Your task to perform on an android device: Go to Yahoo.com Image 0: 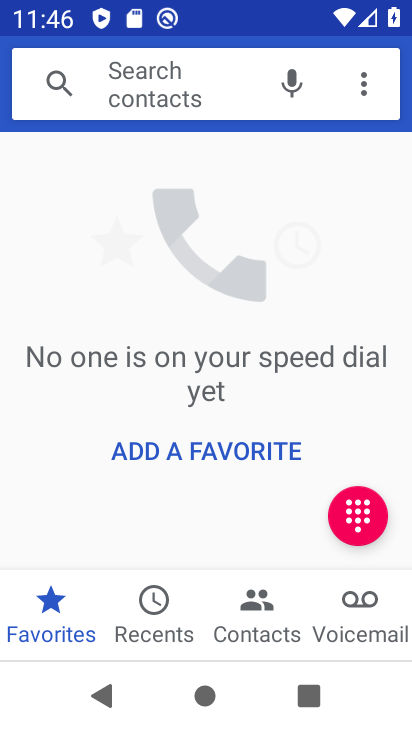
Step 0: press home button
Your task to perform on an android device: Go to Yahoo.com Image 1: 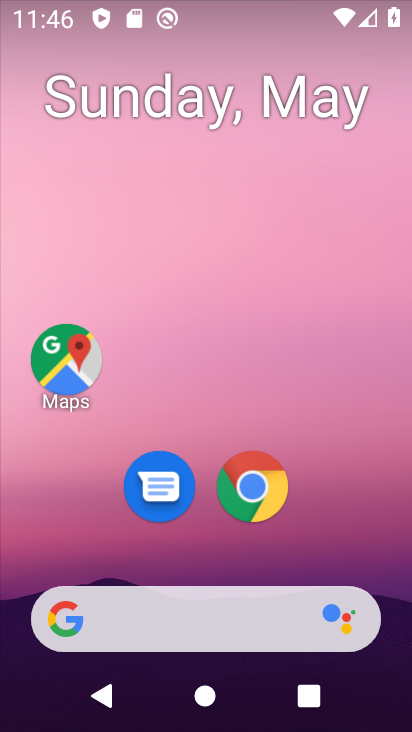
Step 1: click (254, 486)
Your task to perform on an android device: Go to Yahoo.com Image 2: 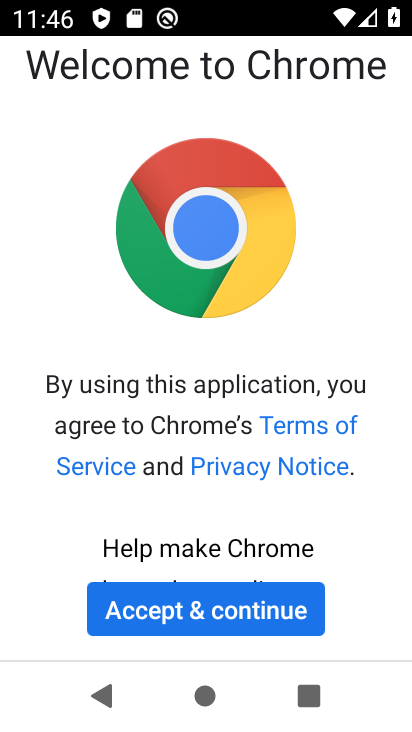
Step 2: click (207, 603)
Your task to perform on an android device: Go to Yahoo.com Image 3: 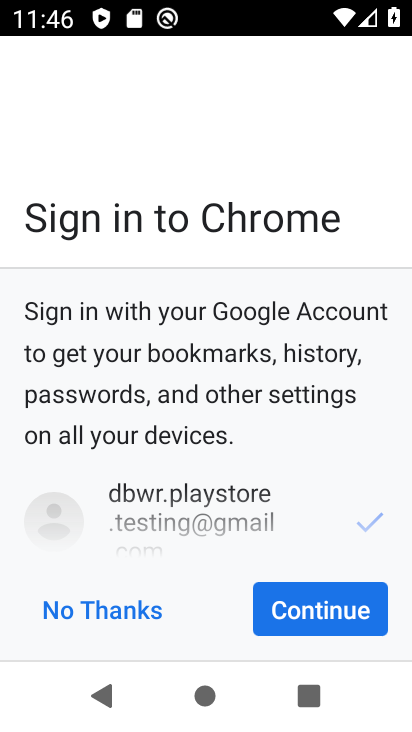
Step 3: click (331, 621)
Your task to perform on an android device: Go to Yahoo.com Image 4: 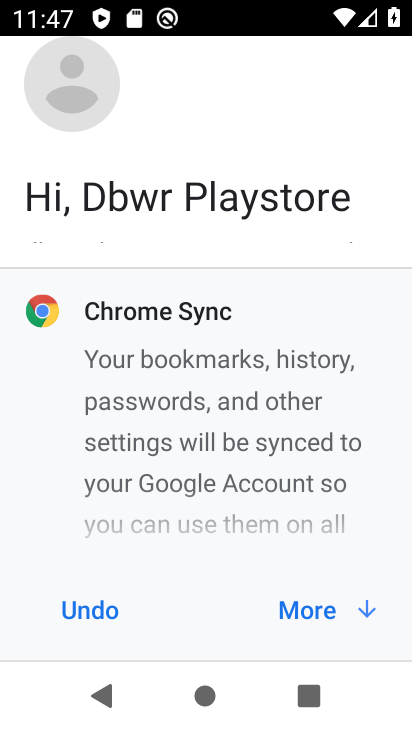
Step 4: click (318, 609)
Your task to perform on an android device: Go to Yahoo.com Image 5: 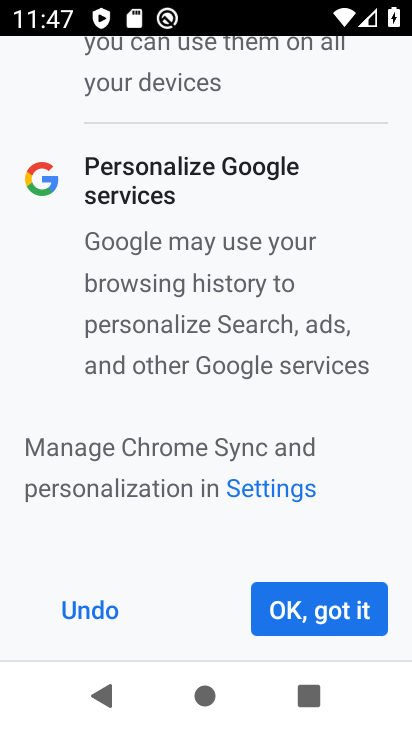
Step 5: click (318, 609)
Your task to perform on an android device: Go to Yahoo.com Image 6: 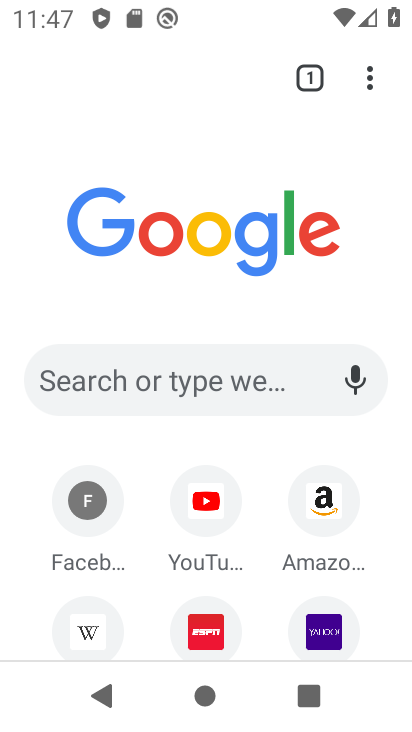
Step 6: click (146, 364)
Your task to perform on an android device: Go to Yahoo.com Image 7: 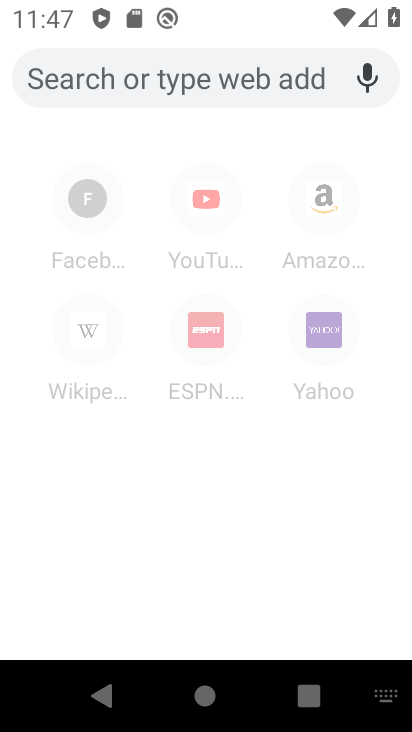
Step 7: type "yahoo.com"
Your task to perform on an android device: Go to Yahoo.com Image 8: 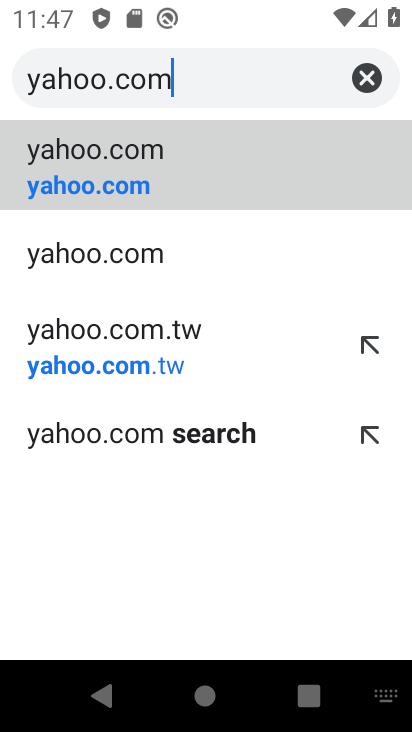
Step 8: click (72, 168)
Your task to perform on an android device: Go to Yahoo.com Image 9: 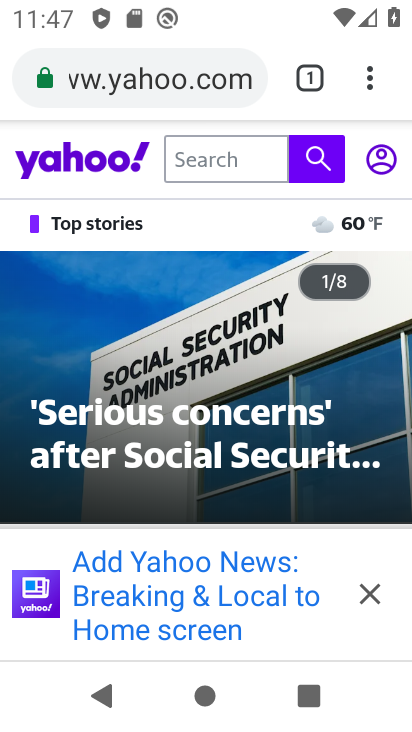
Step 9: task complete